Your task to perform on an android device: turn off airplane mode Image 0: 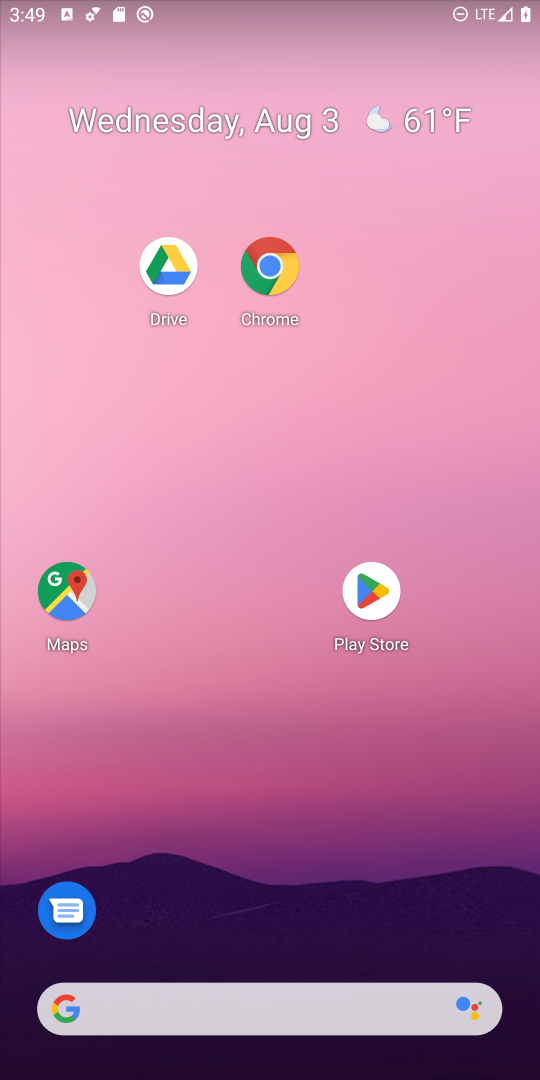
Step 0: drag from (354, 840) to (440, 24)
Your task to perform on an android device: turn off airplane mode Image 1: 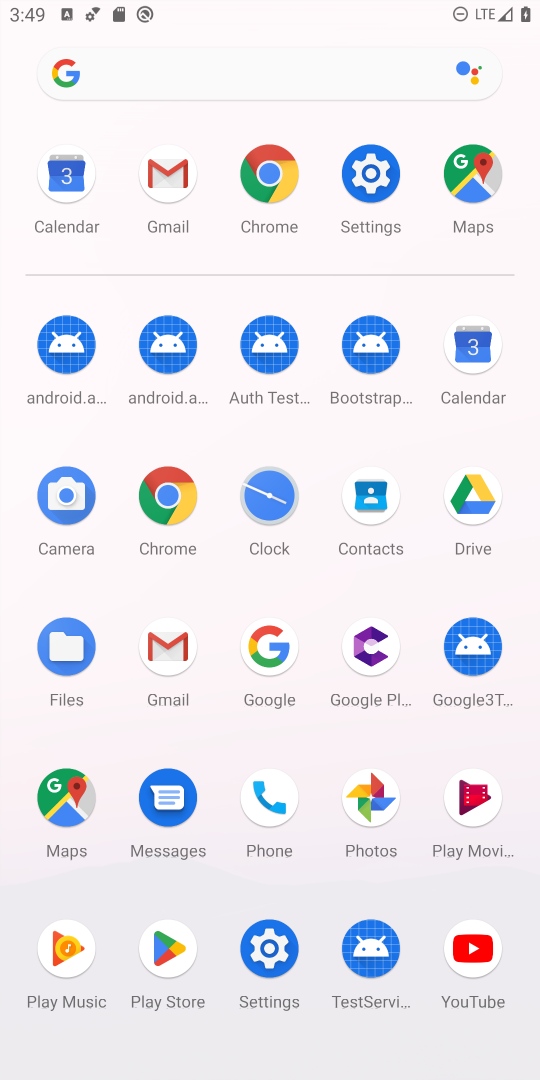
Step 1: click (259, 961)
Your task to perform on an android device: turn off airplane mode Image 2: 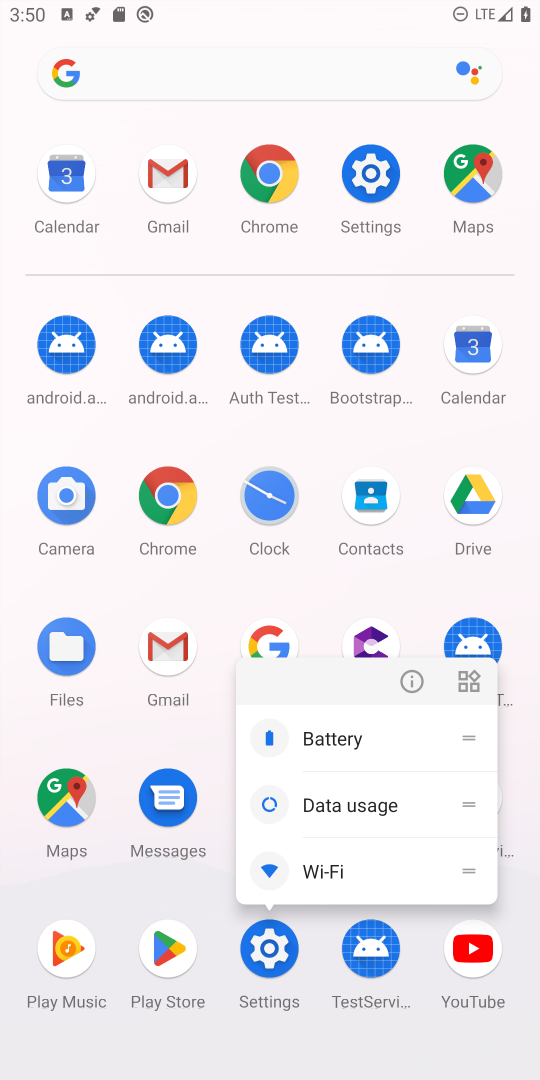
Step 2: click (259, 945)
Your task to perform on an android device: turn off airplane mode Image 3: 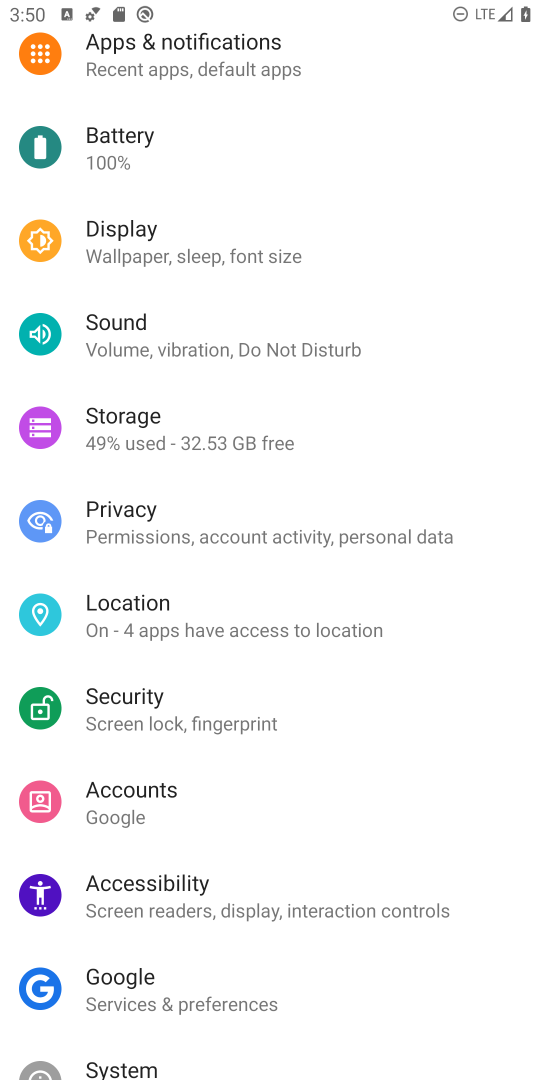
Step 3: drag from (172, 142) to (104, 908)
Your task to perform on an android device: turn off airplane mode Image 4: 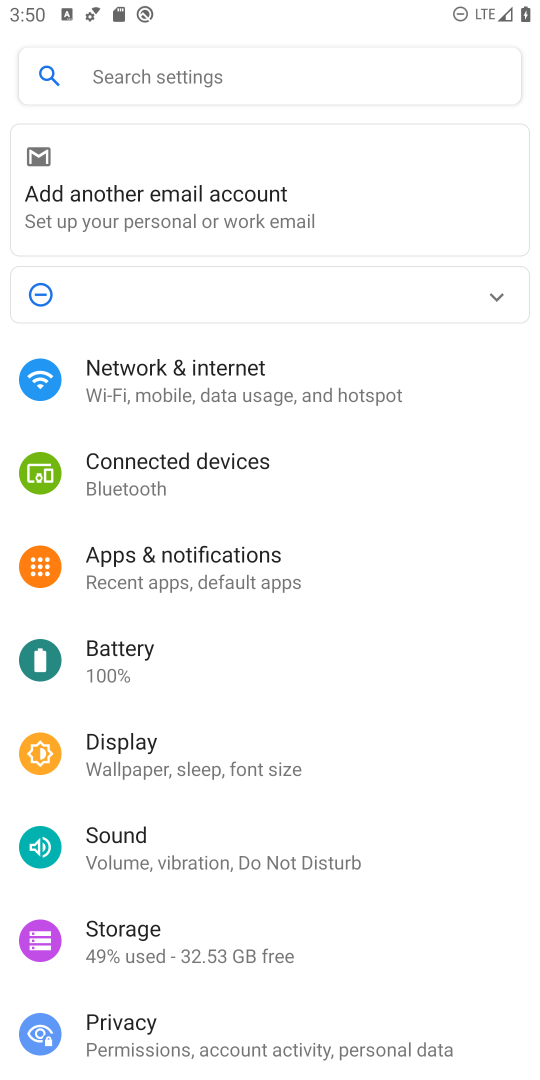
Step 4: click (248, 378)
Your task to perform on an android device: turn off airplane mode Image 5: 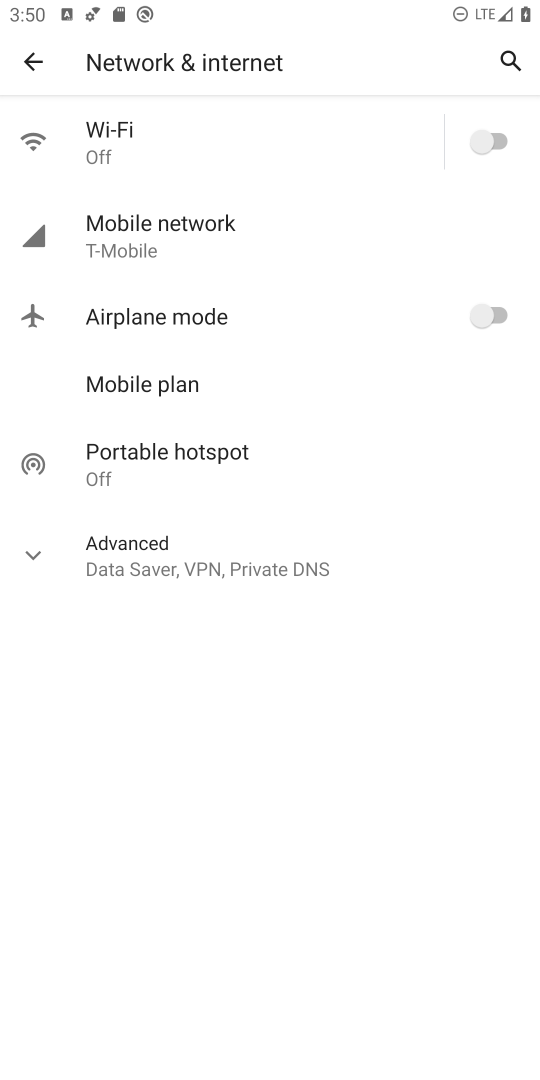
Step 5: click (254, 367)
Your task to perform on an android device: turn off airplane mode Image 6: 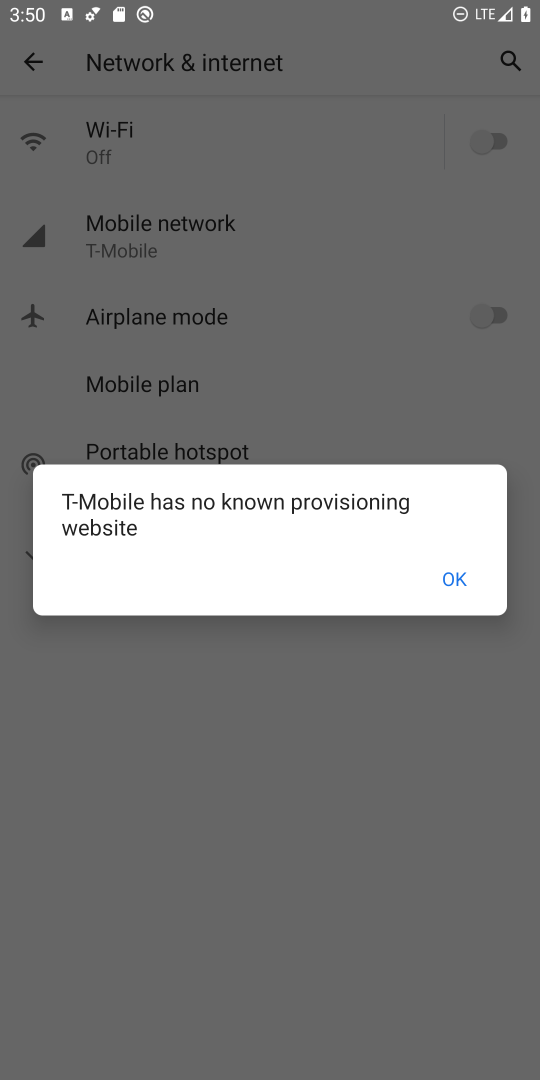
Step 6: click (446, 576)
Your task to perform on an android device: turn off airplane mode Image 7: 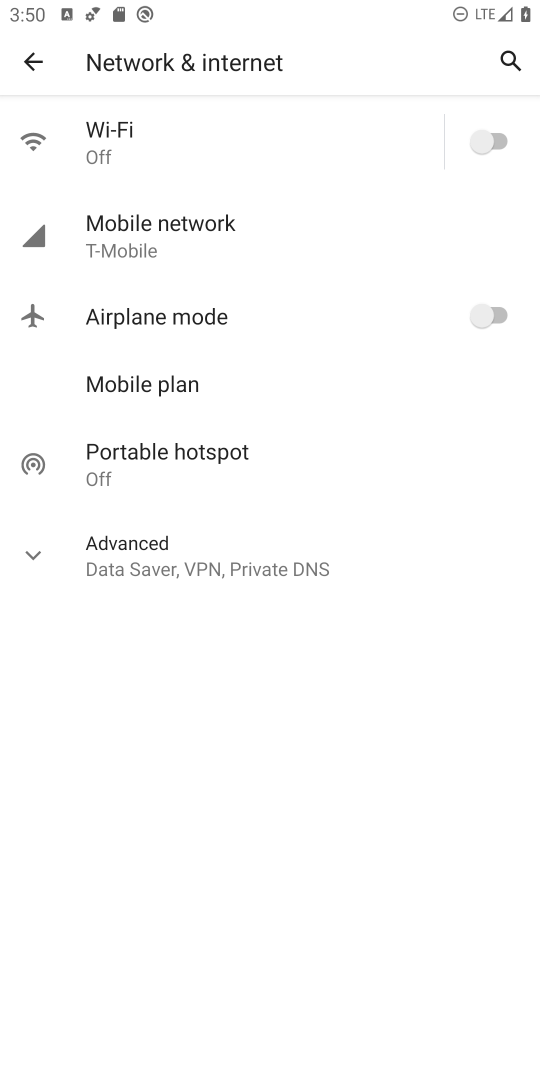
Step 7: task complete